Your task to perform on an android device: Open CNN.com Image 0: 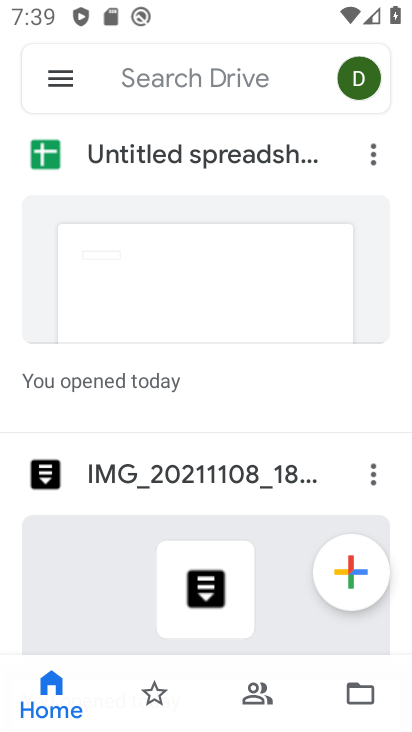
Step 0: press home button
Your task to perform on an android device: Open CNN.com Image 1: 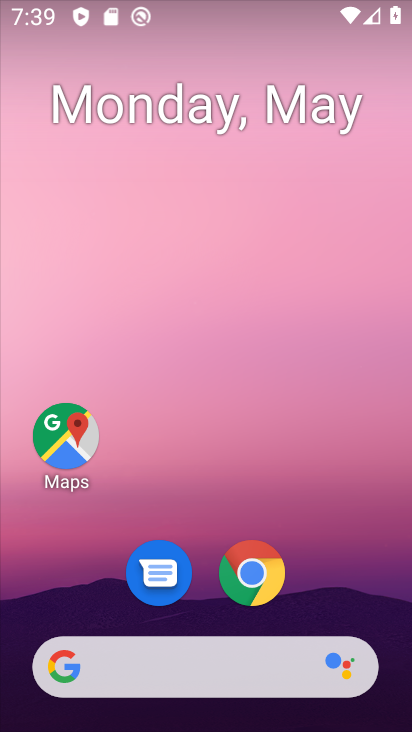
Step 1: click (252, 566)
Your task to perform on an android device: Open CNN.com Image 2: 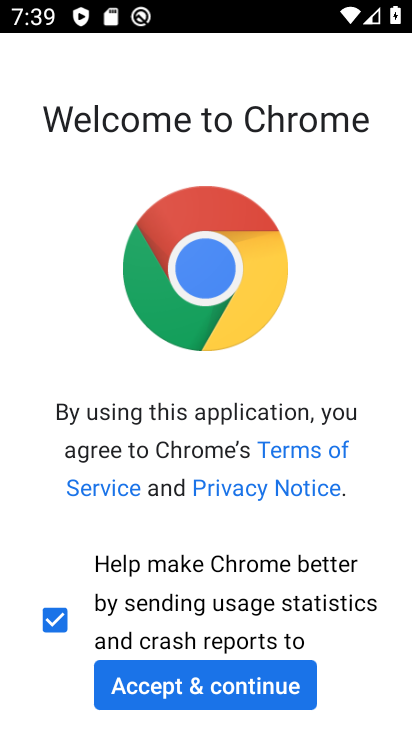
Step 2: click (253, 687)
Your task to perform on an android device: Open CNN.com Image 3: 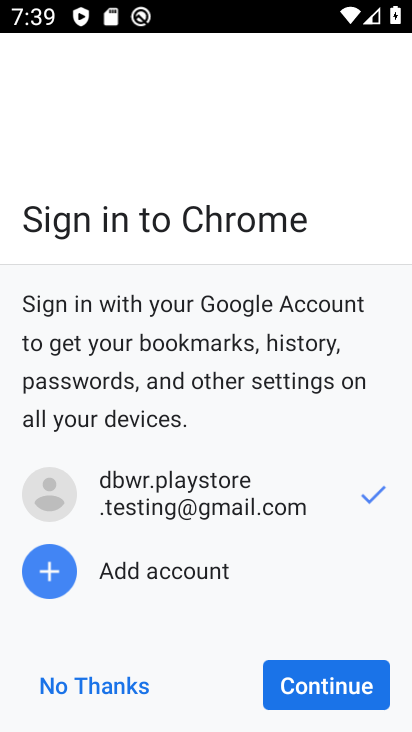
Step 3: click (317, 681)
Your task to perform on an android device: Open CNN.com Image 4: 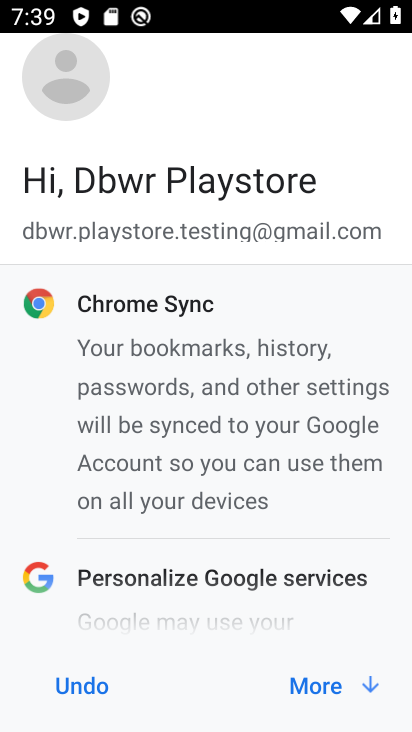
Step 4: click (317, 681)
Your task to perform on an android device: Open CNN.com Image 5: 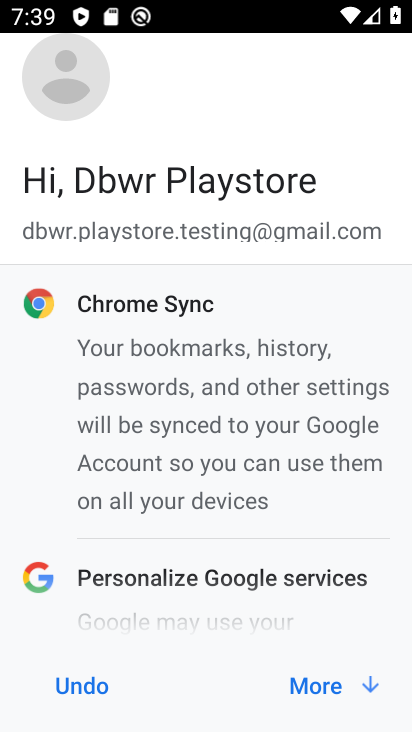
Step 5: click (317, 681)
Your task to perform on an android device: Open CNN.com Image 6: 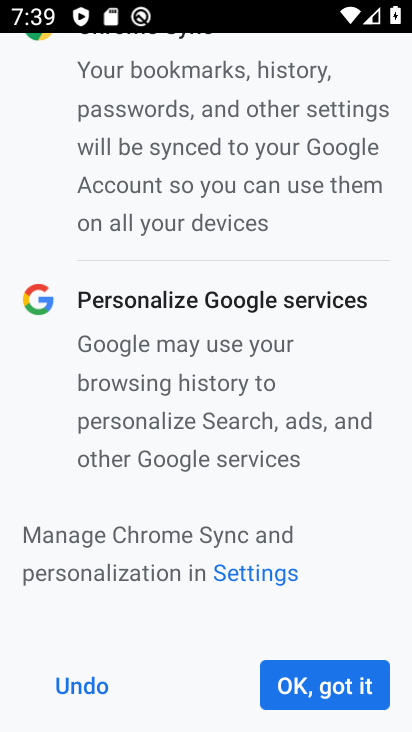
Step 6: click (317, 681)
Your task to perform on an android device: Open CNN.com Image 7: 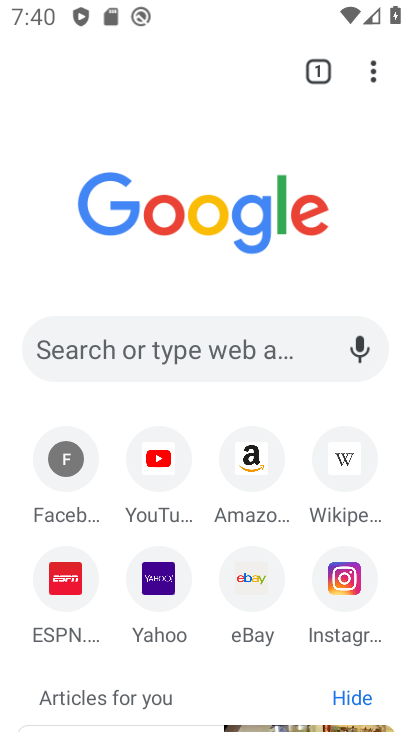
Step 7: click (214, 339)
Your task to perform on an android device: Open CNN.com Image 8: 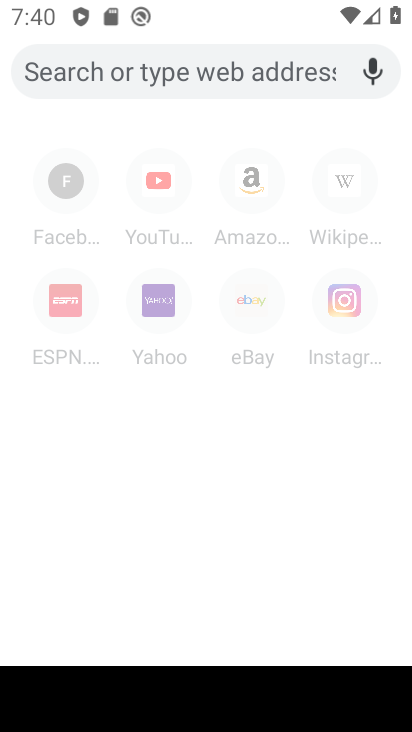
Step 8: type "cnn"
Your task to perform on an android device: Open CNN.com Image 9: 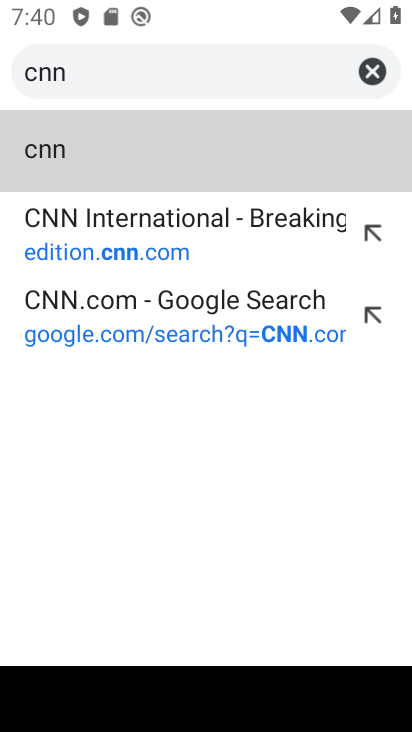
Step 9: click (225, 257)
Your task to perform on an android device: Open CNN.com Image 10: 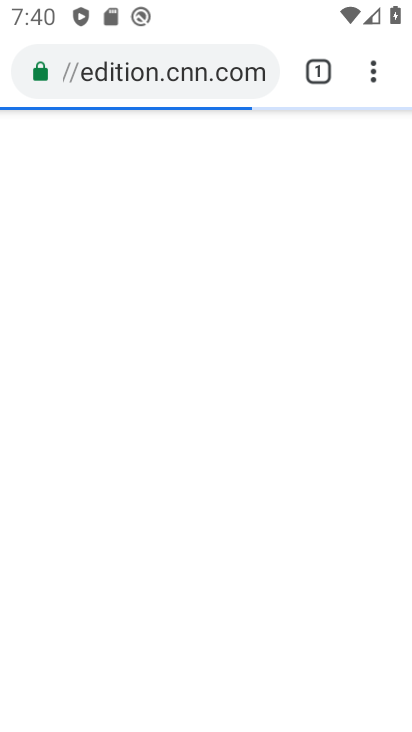
Step 10: task complete